Your task to perform on an android device: Do I have any events today? Image 0: 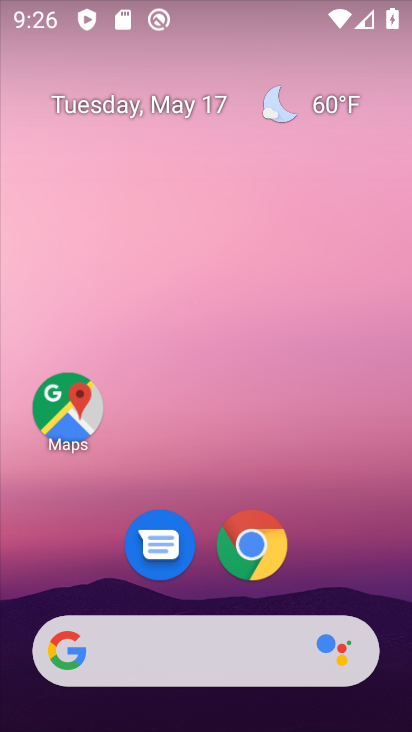
Step 0: drag from (229, 614) to (218, 119)
Your task to perform on an android device: Do I have any events today? Image 1: 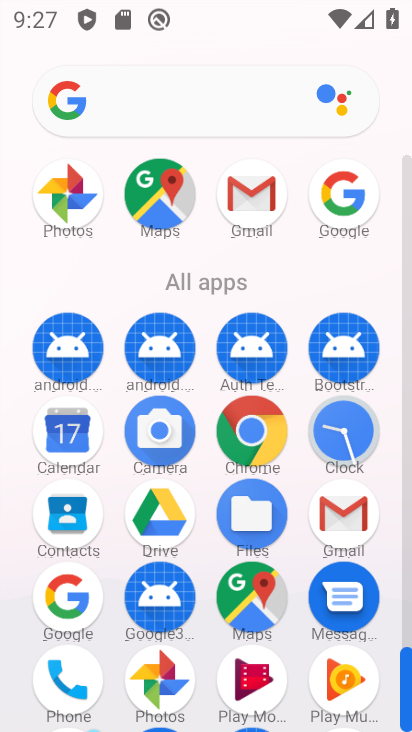
Step 1: click (66, 440)
Your task to perform on an android device: Do I have any events today? Image 2: 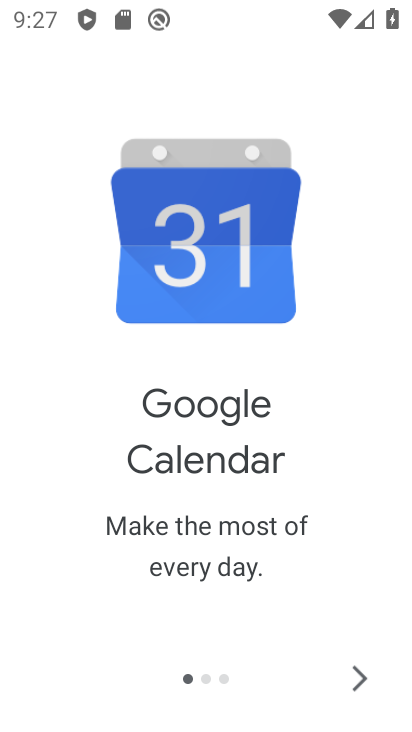
Step 2: click (357, 681)
Your task to perform on an android device: Do I have any events today? Image 3: 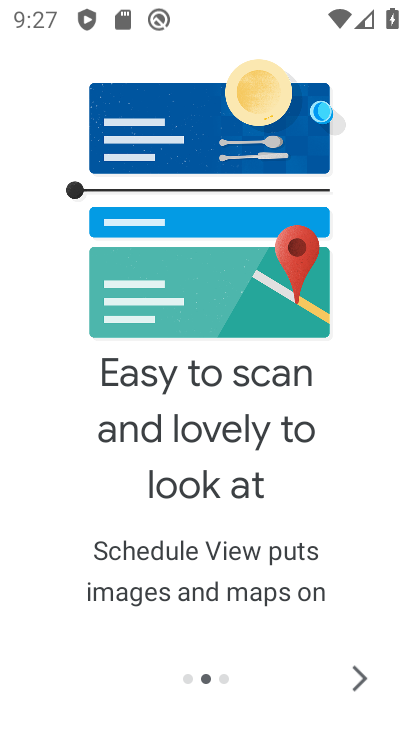
Step 3: click (357, 681)
Your task to perform on an android device: Do I have any events today? Image 4: 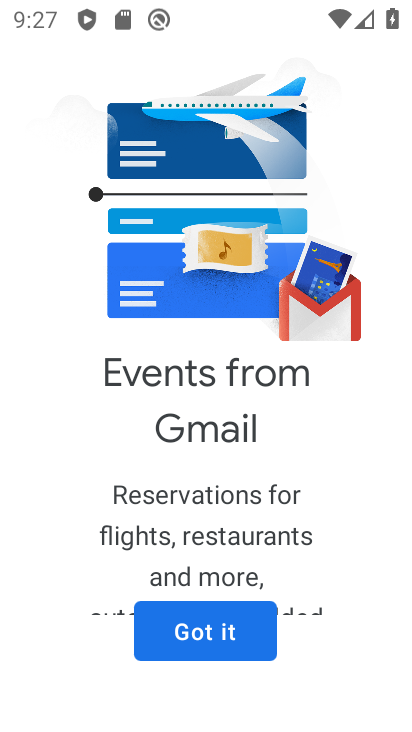
Step 4: click (218, 640)
Your task to perform on an android device: Do I have any events today? Image 5: 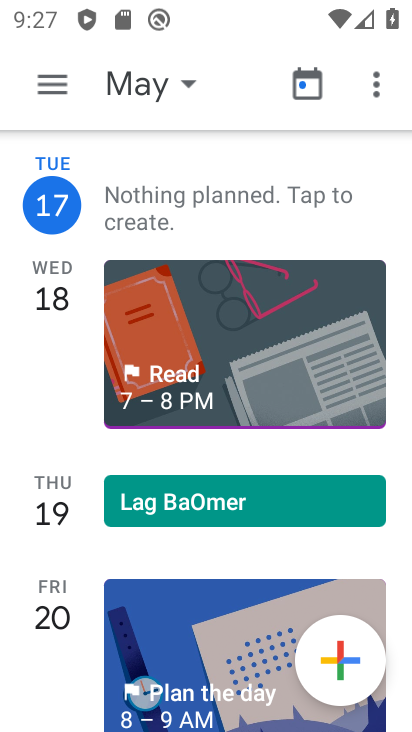
Step 5: click (178, 335)
Your task to perform on an android device: Do I have any events today? Image 6: 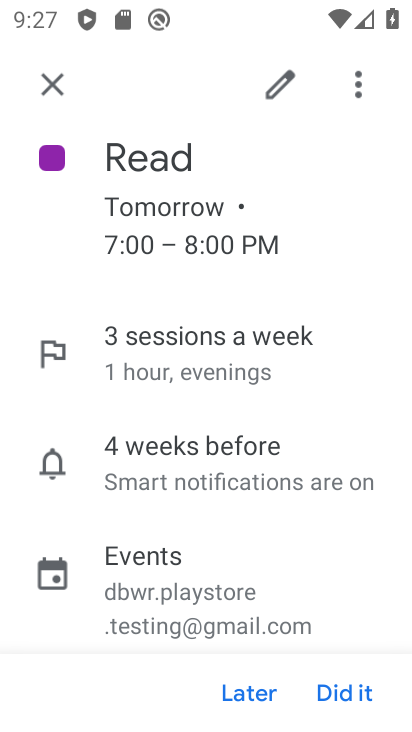
Step 6: task complete